Your task to perform on an android device: Open the map Image 0: 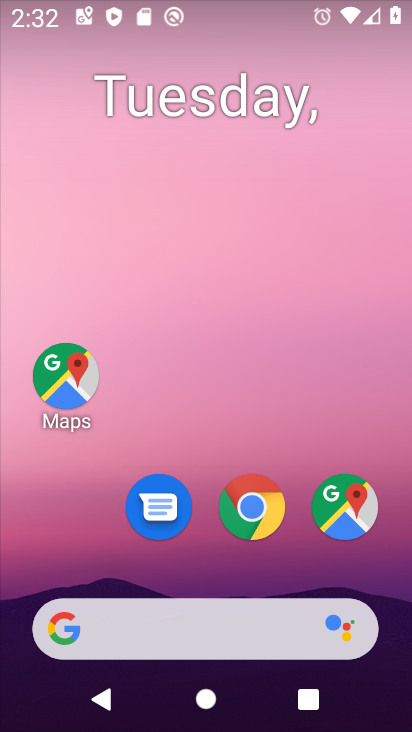
Step 0: click (344, 515)
Your task to perform on an android device: Open the map Image 1: 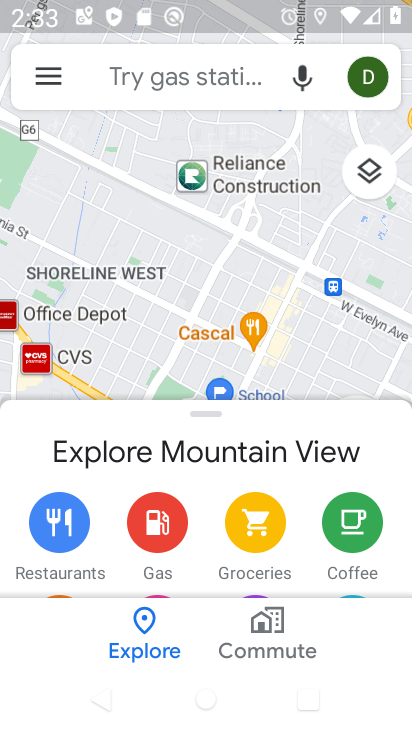
Step 1: task complete